Your task to perform on an android device: Search for sony triple a on walmart, select the first entry, and add it to the cart. Image 0: 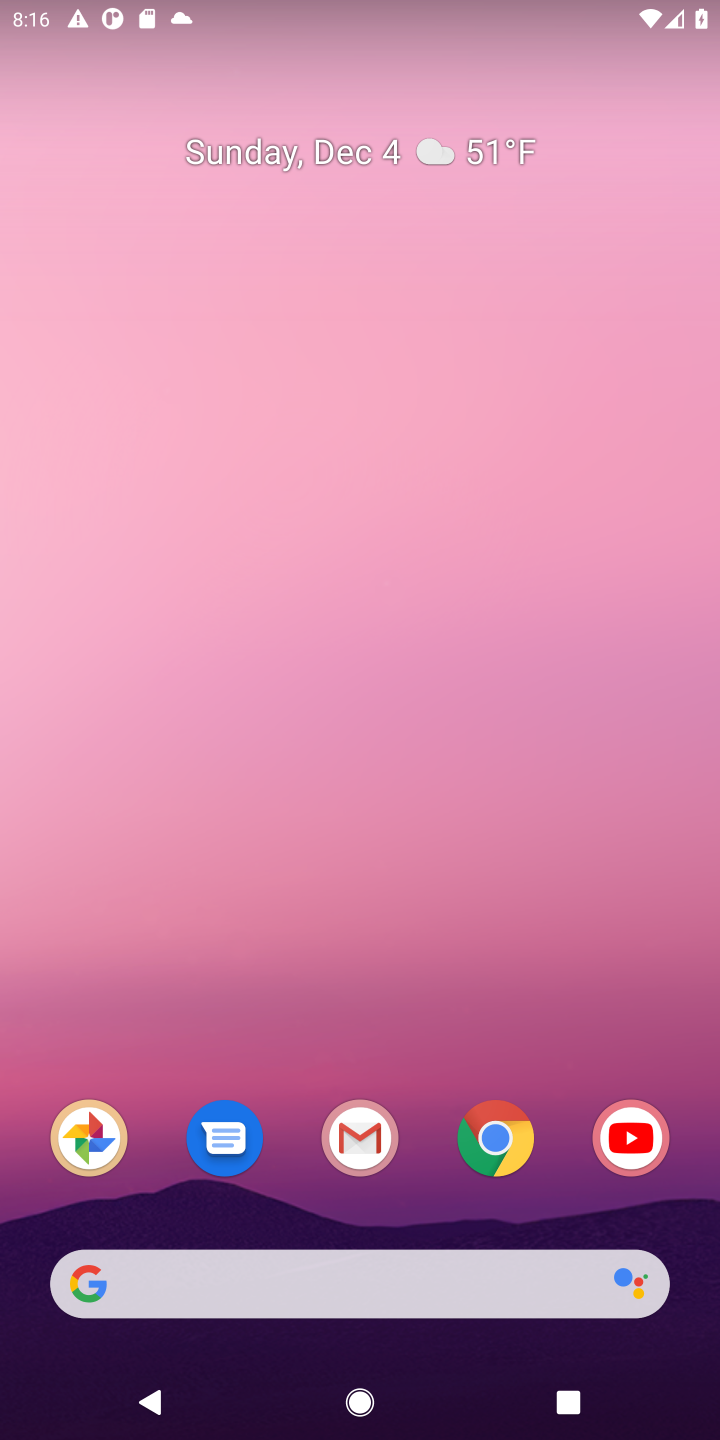
Step 0: click (504, 1151)
Your task to perform on an android device: Search for sony triple a on walmart, select the first entry, and add it to the cart. Image 1: 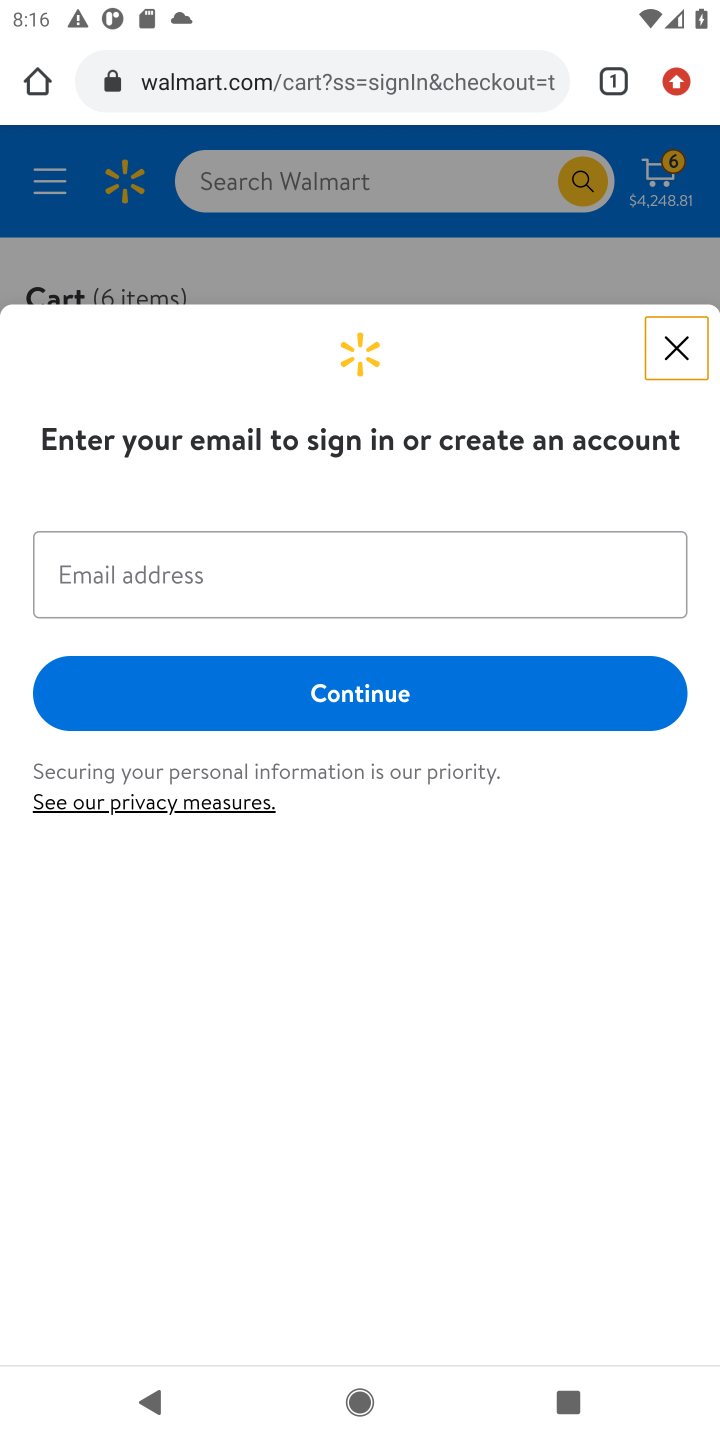
Step 1: click (710, 353)
Your task to perform on an android device: Search for sony triple a on walmart, select the first entry, and add it to the cart. Image 2: 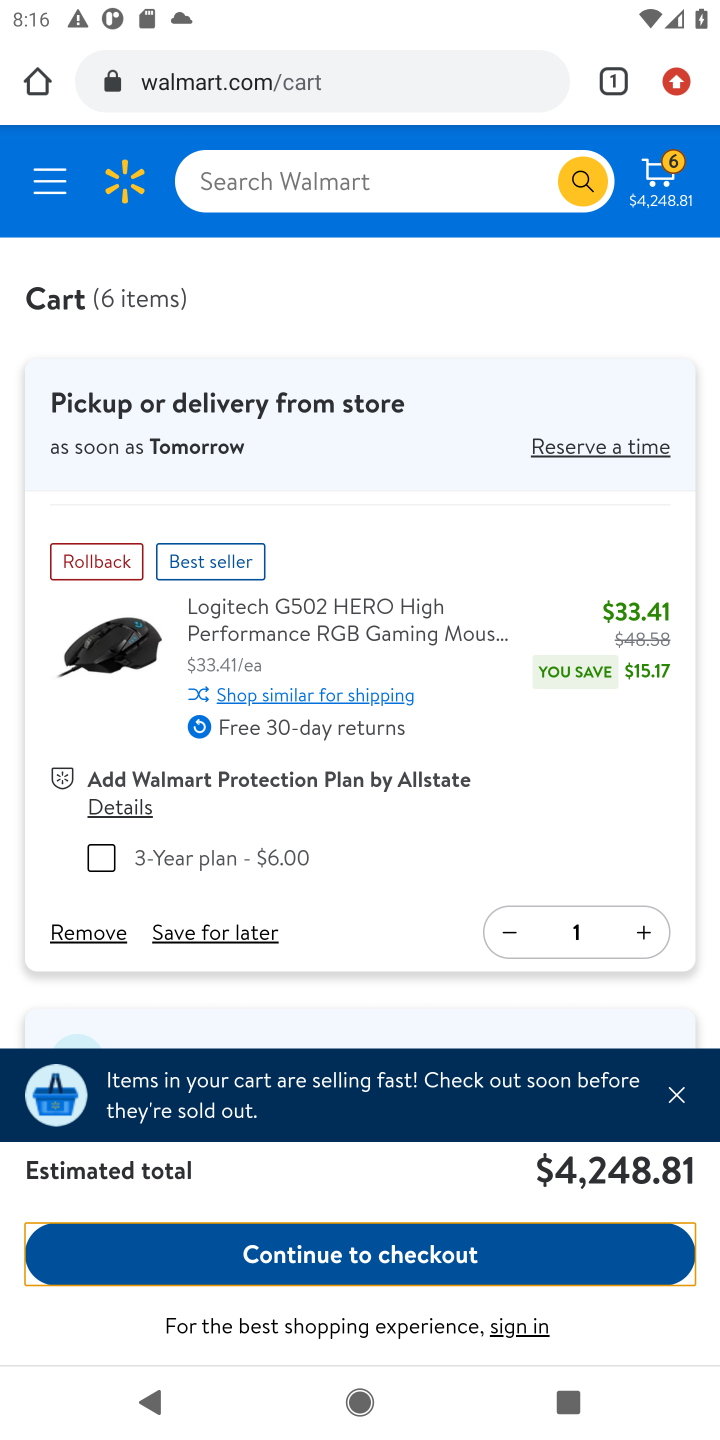
Step 2: click (429, 160)
Your task to perform on an android device: Search for sony triple a on walmart, select the first entry, and add it to the cart. Image 3: 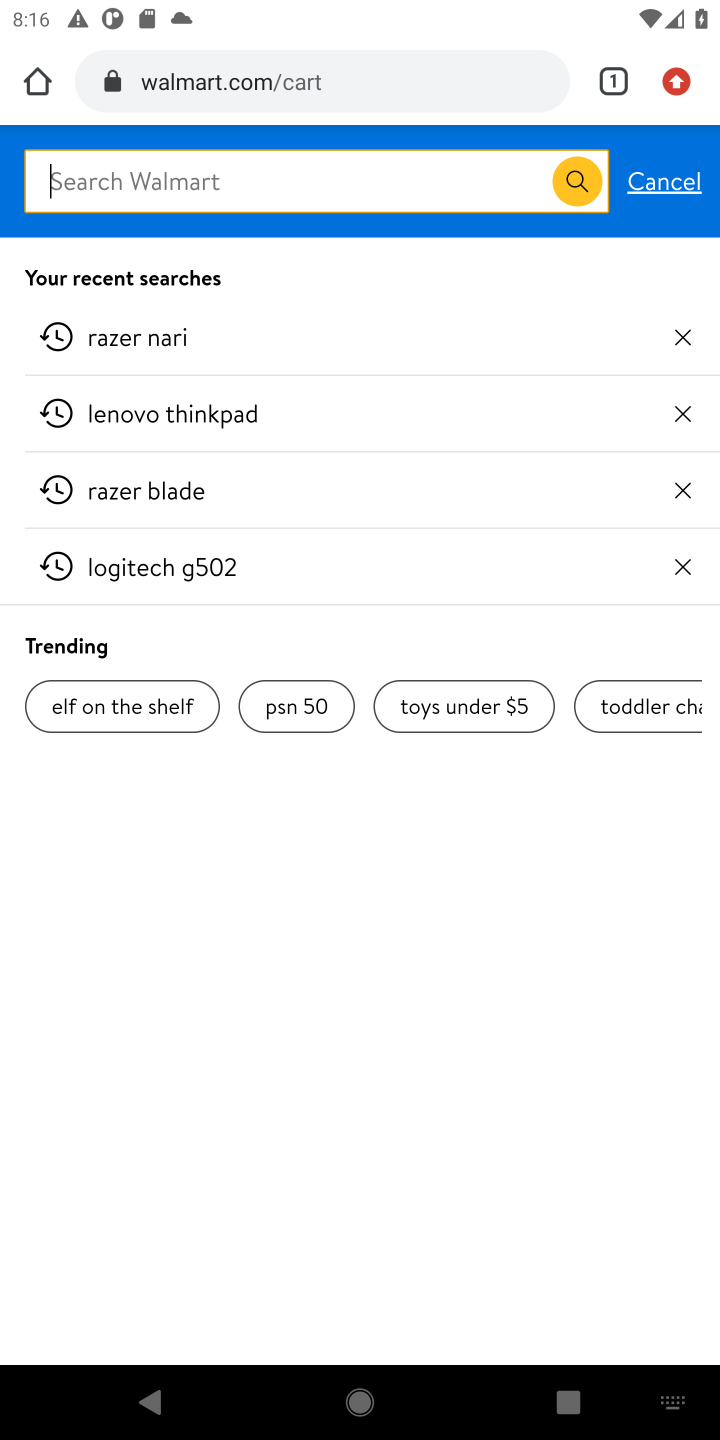
Step 3: type "sony triple a"
Your task to perform on an android device: Search for sony triple a on walmart, select the first entry, and add it to the cart. Image 4: 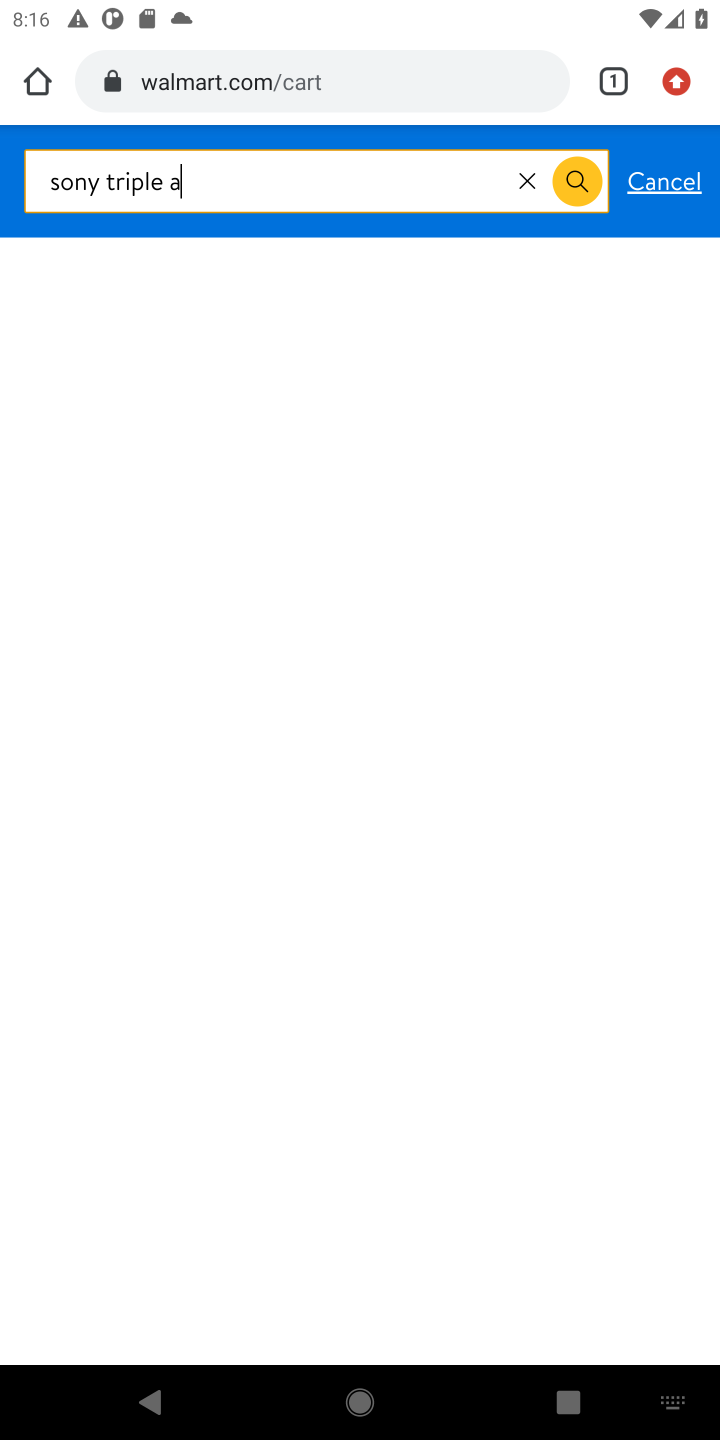
Step 4: press enter
Your task to perform on an android device: Search for sony triple a on walmart, select the first entry, and add it to the cart. Image 5: 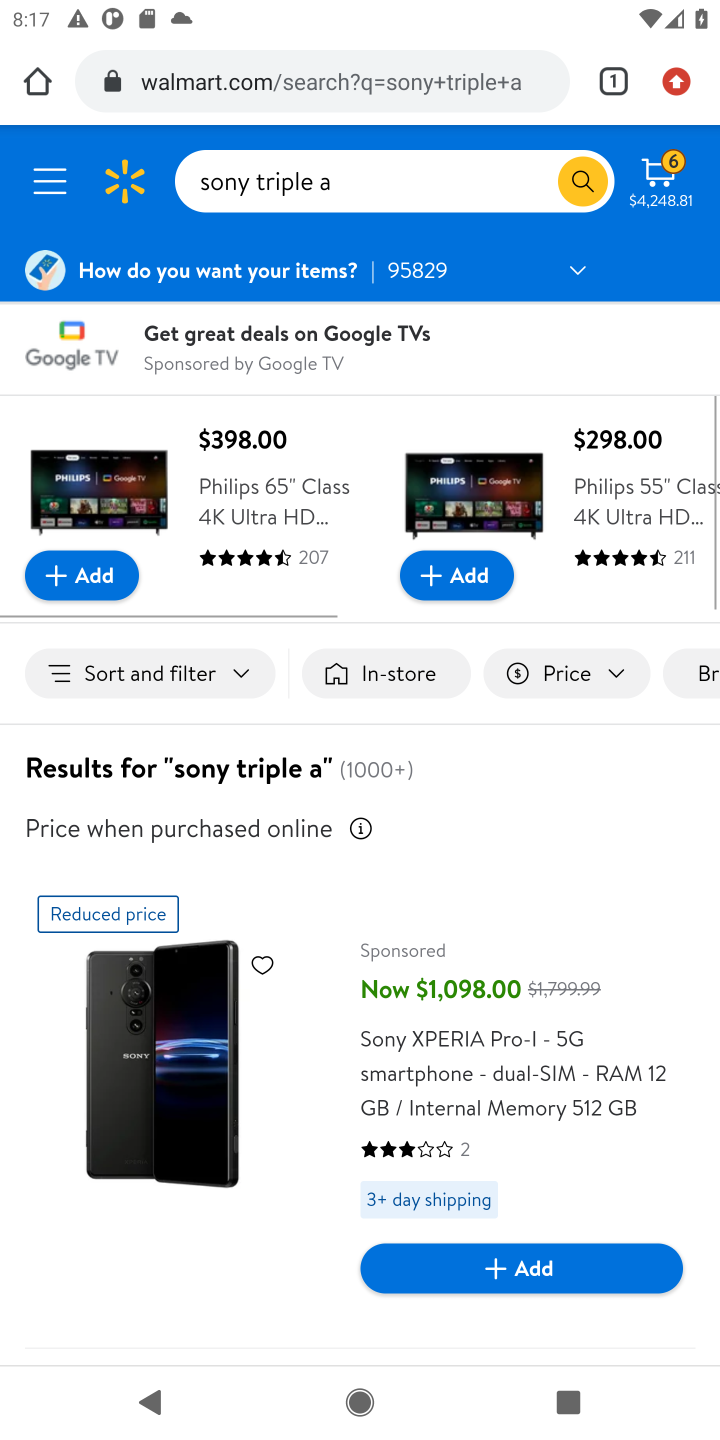
Step 5: drag from (213, 1001) to (215, 704)
Your task to perform on an android device: Search for sony triple a on walmart, select the first entry, and add it to the cart. Image 6: 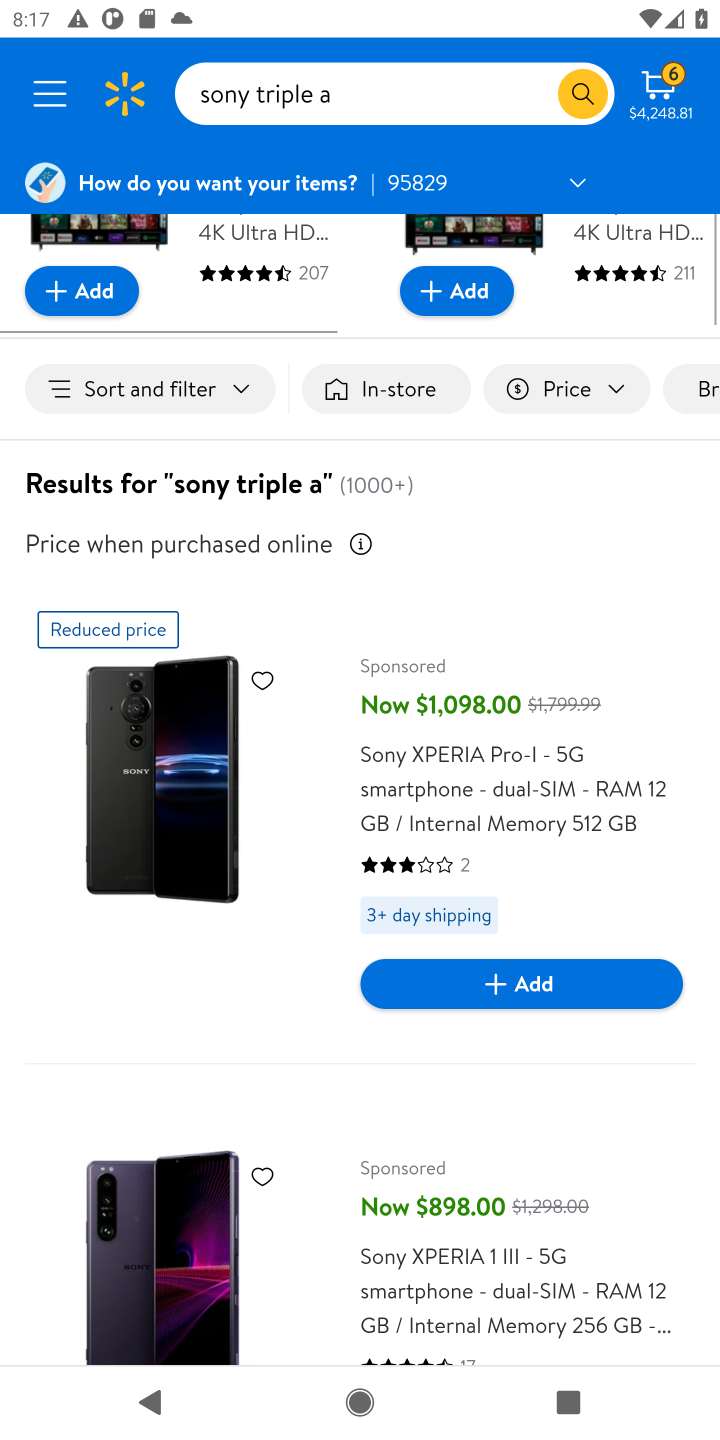
Step 6: click (169, 1250)
Your task to perform on an android device: Search for sony triple a on walmart, select the first entry, and add it to the cart. Image 7: 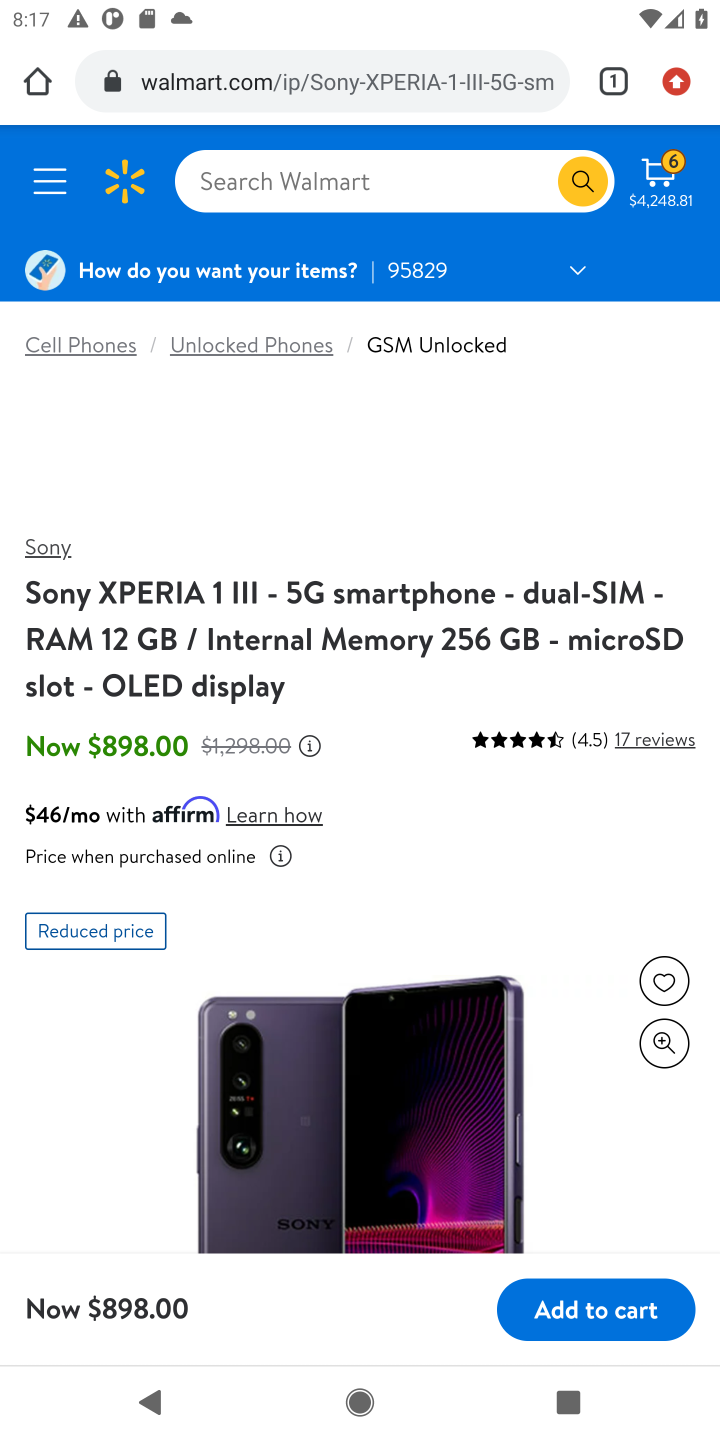
Step 7: click (593, 1309)
Your task to perform on an android device: Search for sony triple a on walmart, select the first entry, and add it to the cart. Image 8: 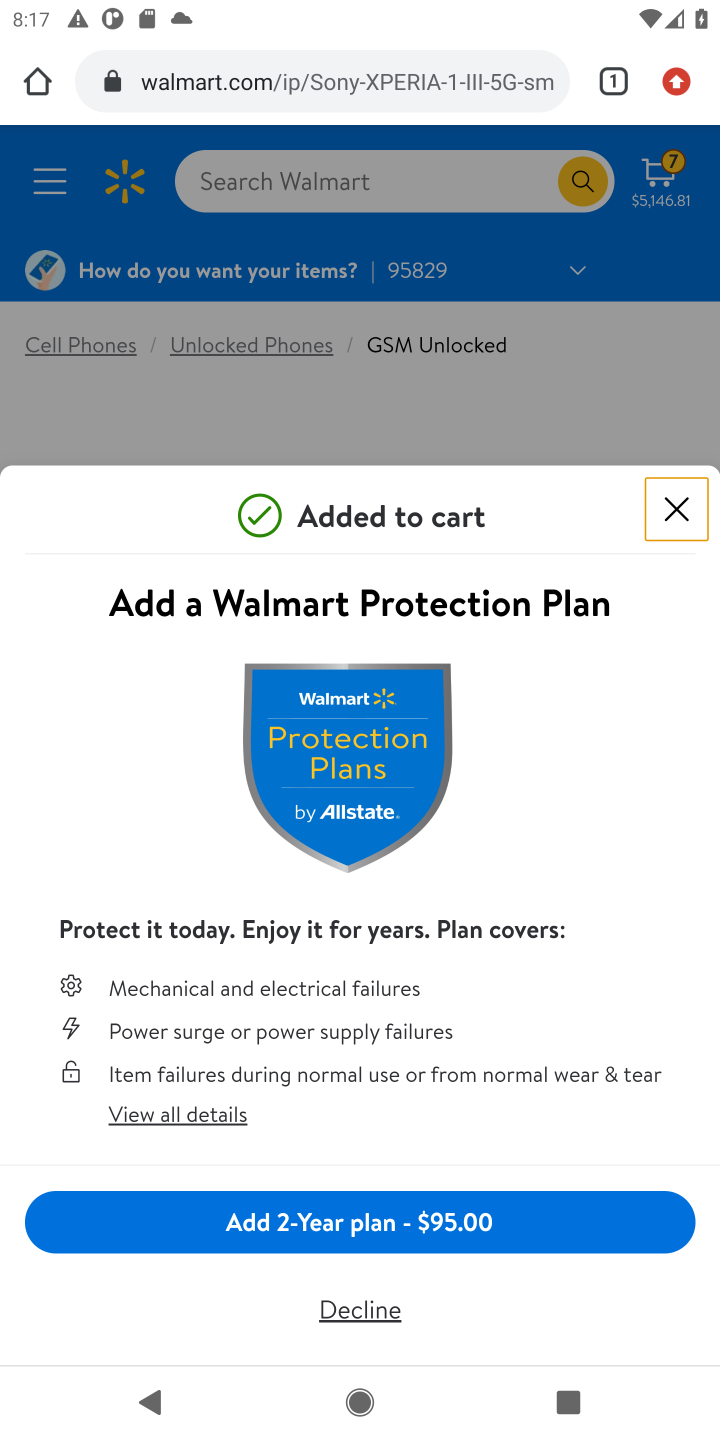
Step 8: task complete